Your task to perform on an android device: Open Wikipedia Image 0: 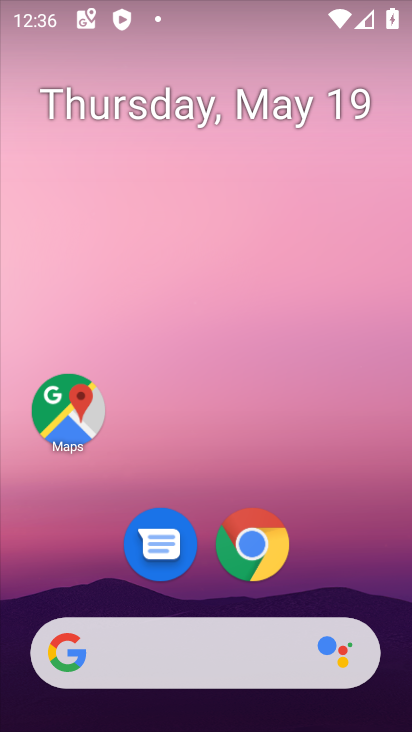
Step 0: drag from (203, 616) to (270, 71)
Your task to perform on an android device: Open Wikipedia Image 1: 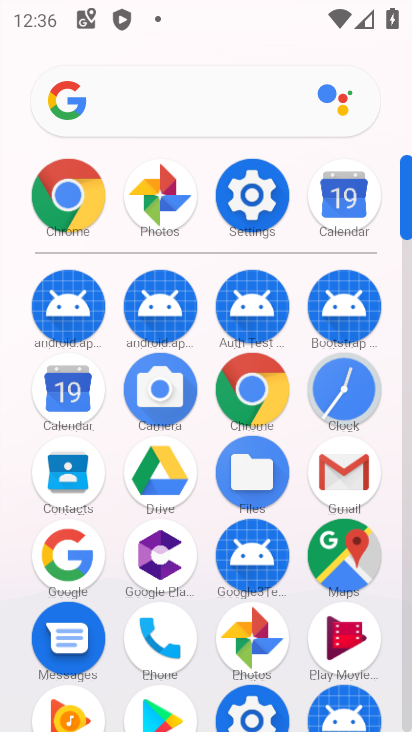
Step 1: click (79, 180)
Your task to perform on an android device: Open Wikipedia Image 2: 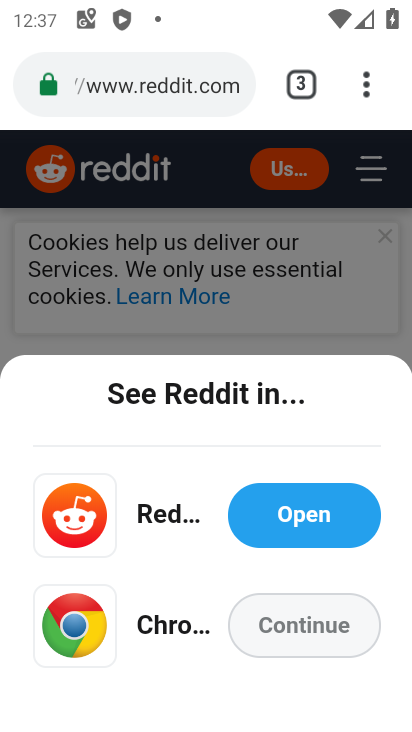
Step 2: click (362, 84)
Your task to perform on an android device: Open Wikipedia Image 3: 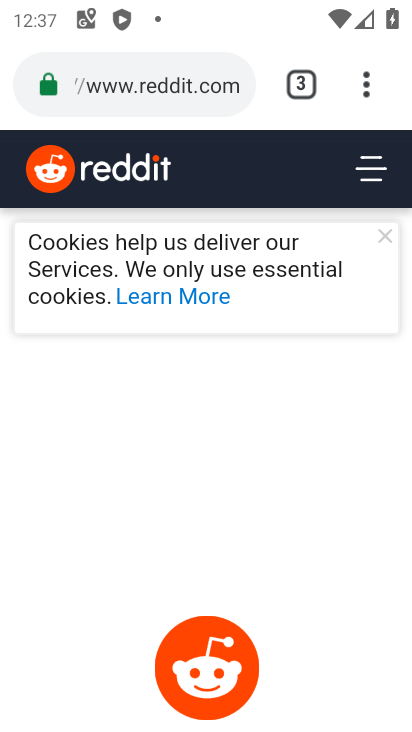
Step 3: drag from (369, 83) to (123, 156)
Your task to perform on an android device: Open Wikipedia Image 4: 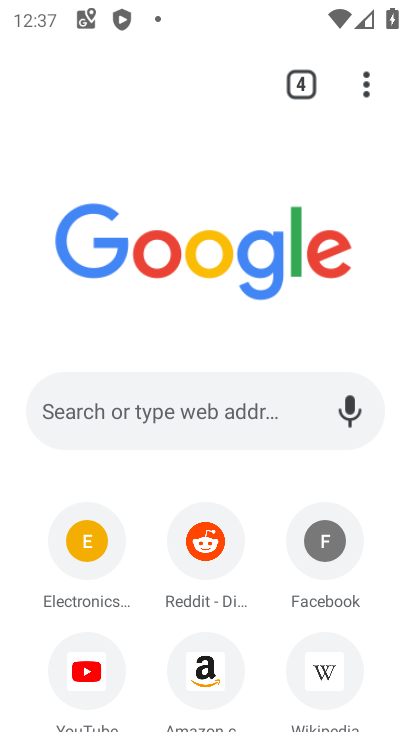
Step 4: click (310, 671)
Your task to perform on an android device: Open Wikipedia Image 5: 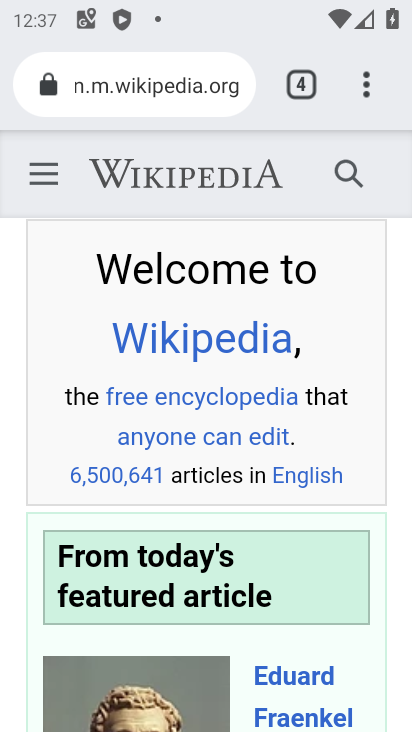
Step 5: task complete